Your task to perform on an android device: check storage Image 0: 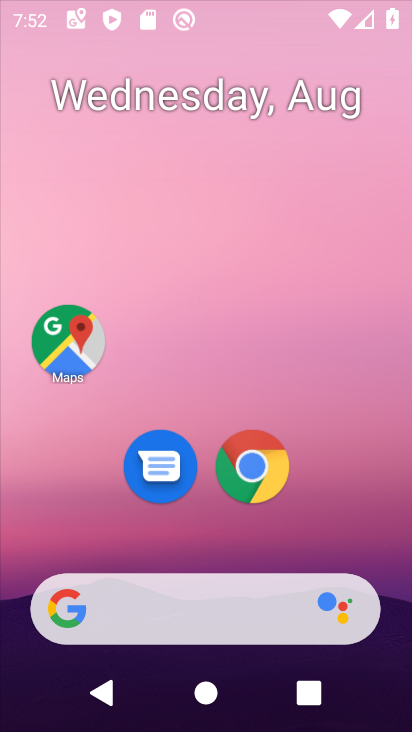
Step 0: drag from (343, 501) to (264, 37)
Your task to perform on an android device: check storage Image 1: 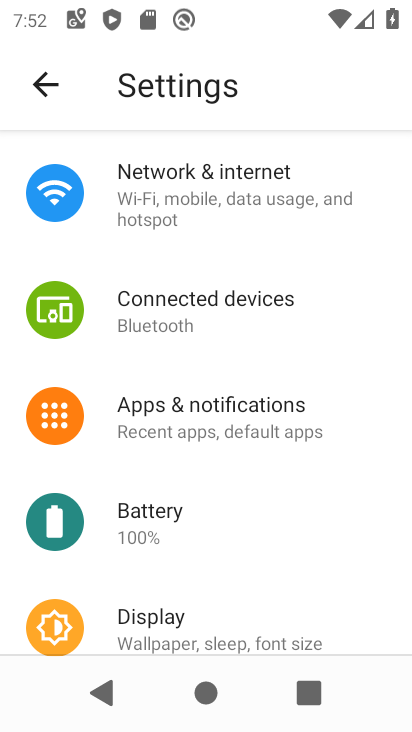
Step 1: drag from (324, 531) to (304, 156)
Your task to perform on an android device: check storage Image 2: 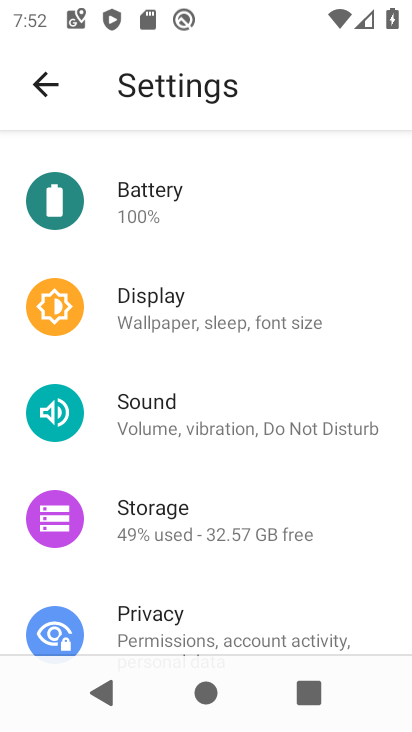
Step 2: click (226, 527)
Your task to perform on an android device: check storage Image 3: 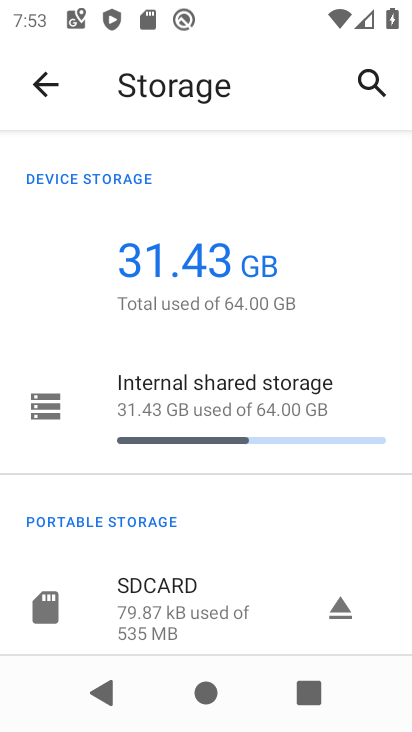
Step 3: task complete